Your task to perform on an android device: check the backup settings in the google photos Image 0: 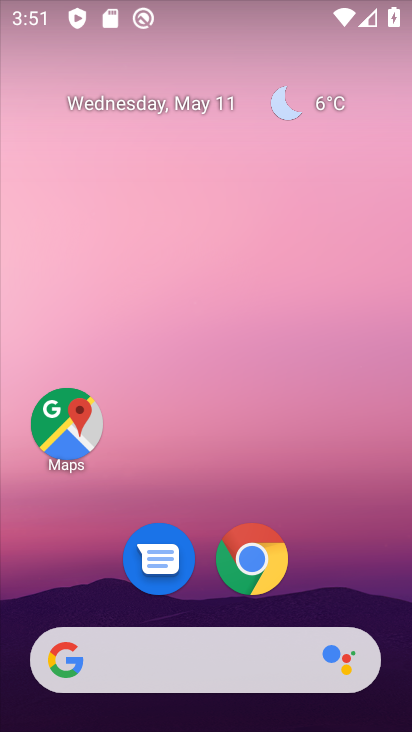
Step 0: drag from (363, 566) to (321, 106)
Your task to perform on an android device: check the backup settings in the google photos Image 1: 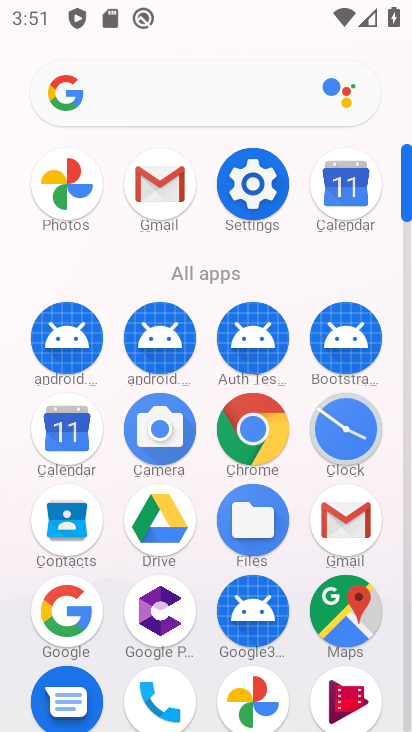
Step 1: click (62, 192)
Your task to perform on an android device: check the backup settings in the google photos Image 2: 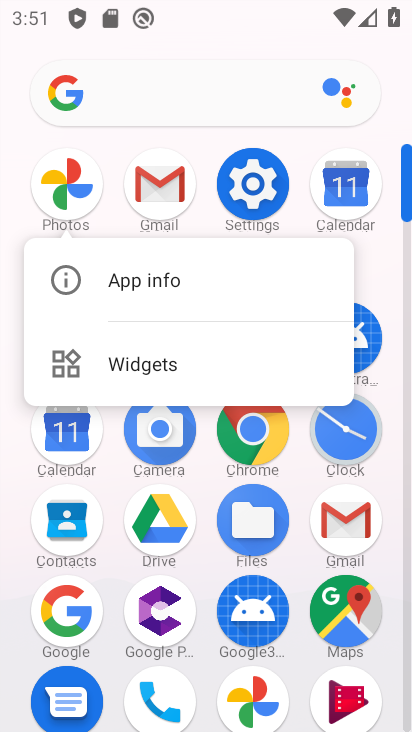
Step 2: click (62, 175)
Your task to perform on an android device: check the backup settings in the google photos Image 3: 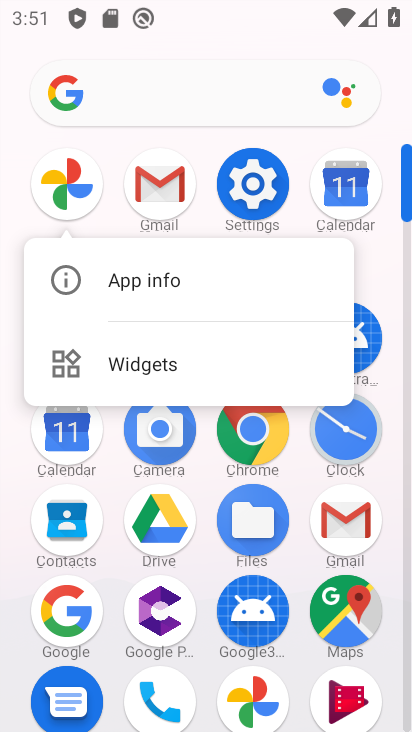
Step 3: click (62, 175)
Your task to perform on an android device: check the backup settings in the google photos Image 4: 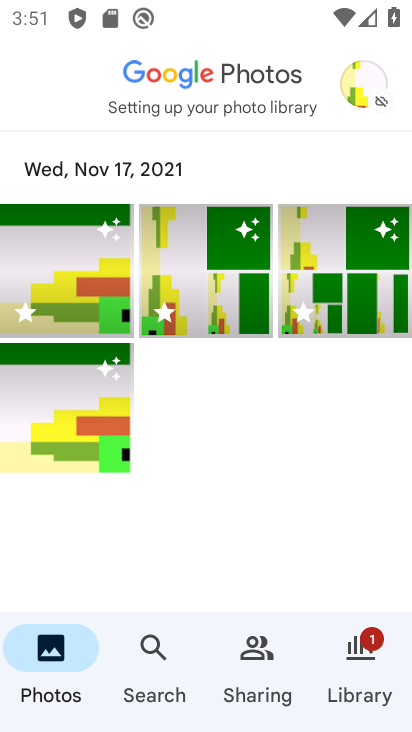
Step 4: click (375, 92)
Your task to perform on an android device: check the backup settings in the google photos Image 5: 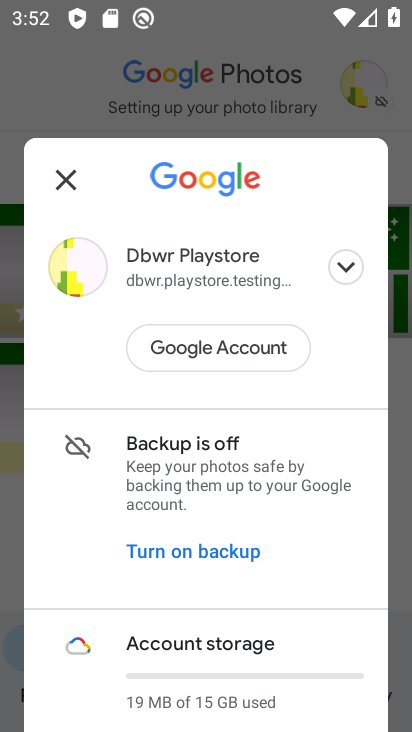
Step 5: click (169, 463)
Your task to perform on an android device: check the backup settings in the google photos Image 6: 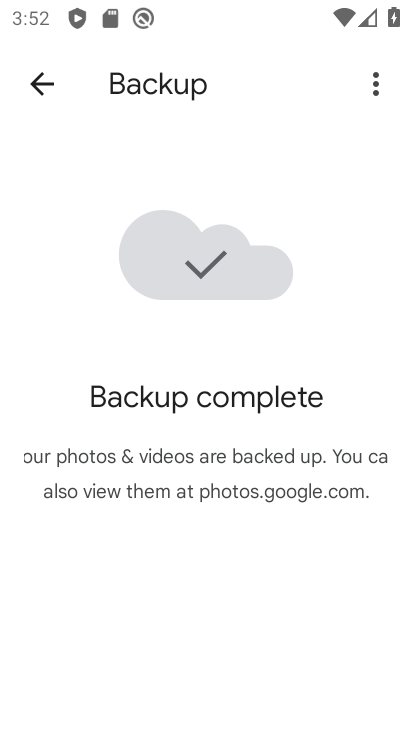
Step 6: task complete